Your task to perform on an android device: turn pop-ups off in chrome Image 0: 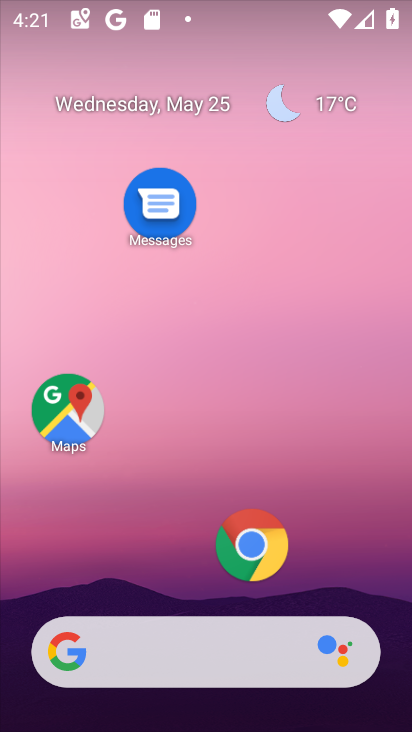
Step 0: click (256, 547)
Your task to perform on an android device: turn pop-ups off in chrome Image 1: 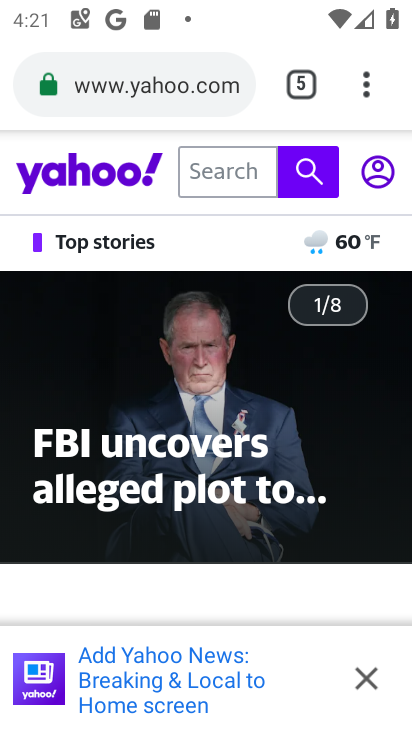
Step 1: click (371, 86)
Your task to perform on an android device: turn pop-ups off in chrome Image 2: 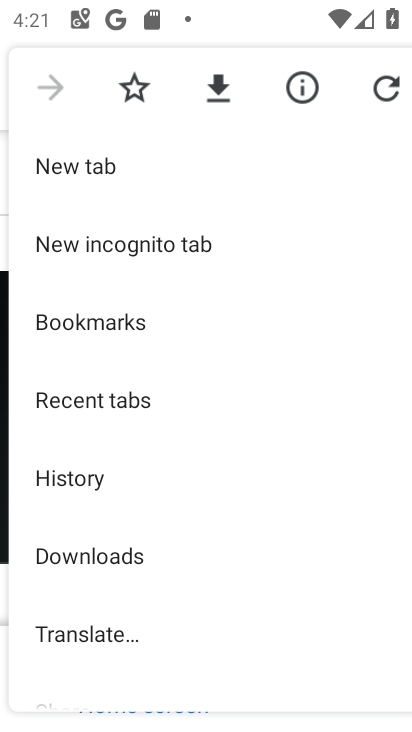
Step 2: drag from (151, 580) to (184, 211)
Your task to perform on an android device: turn pop-ups off in chrome Image 3: 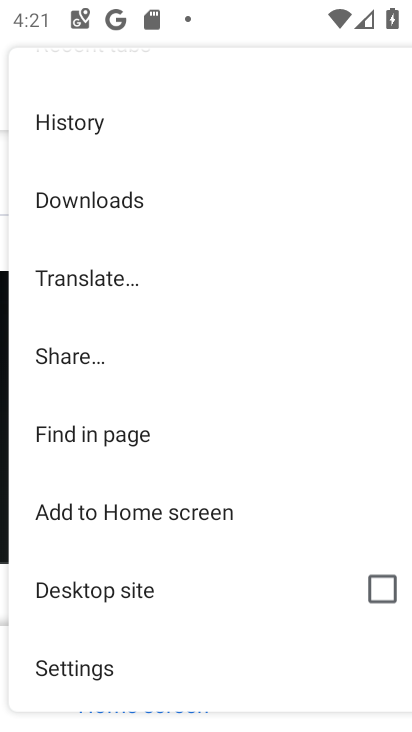
Step 3: click (89, 675)
Your task to perform on an android device: turn pop-ups off in chrome Image 4: 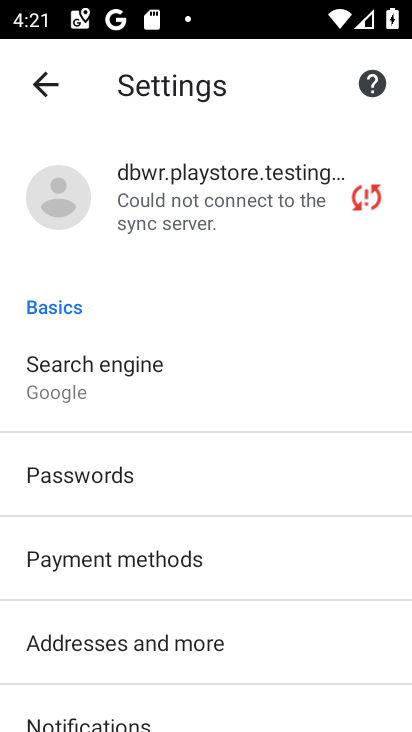
Step 4: drag from (247, 649) to (240, 123)
Your task to perform on an android device: turn pop-ups off in chrome Image 5: 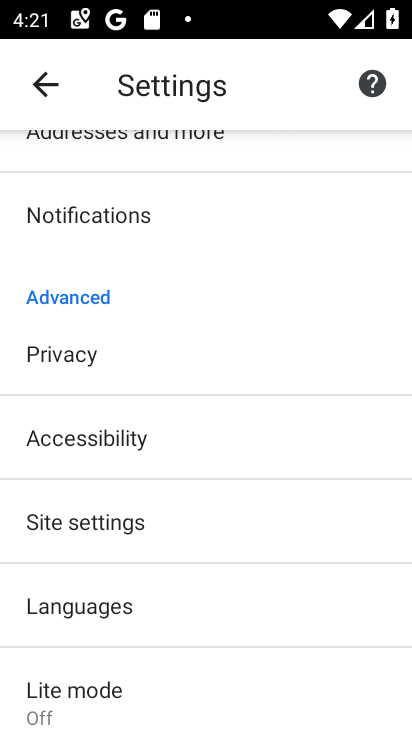
Step 5: drag from (203, 578) to (249, 95)
Your task to perform on an android device: turn pop-ups off in chrome Image 6: 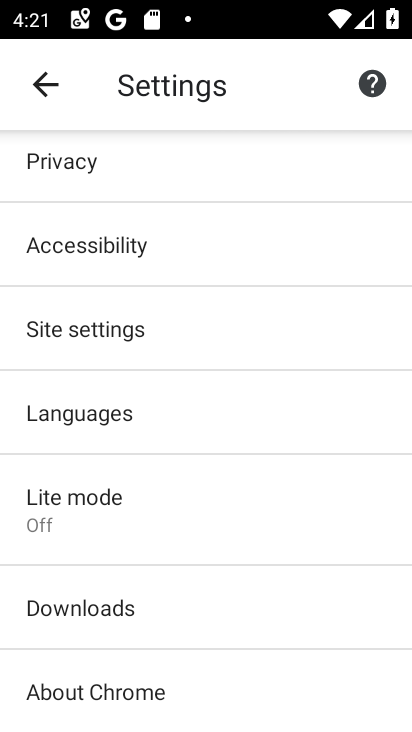
Step 6: click (137, 332)
Your task to perform on an android device: turn pop-ups off in chrome Image 7: 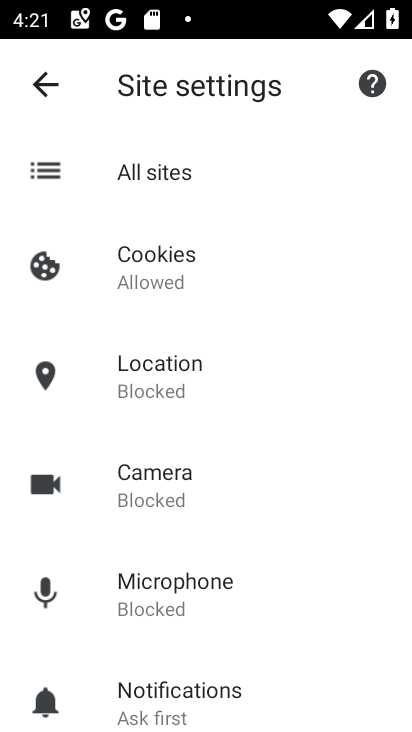
Step 7: drag from (215, 640) to (286, 157)
Your task to perform on an android device: turn pop-ups off in chrome Image 8: 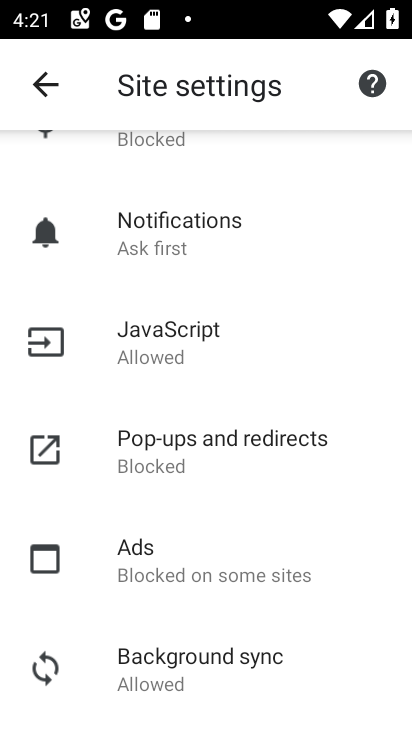
Step 8: click (256, 444)
Your task to perform on an android device: turn pop-ups off in chrome Image 9: 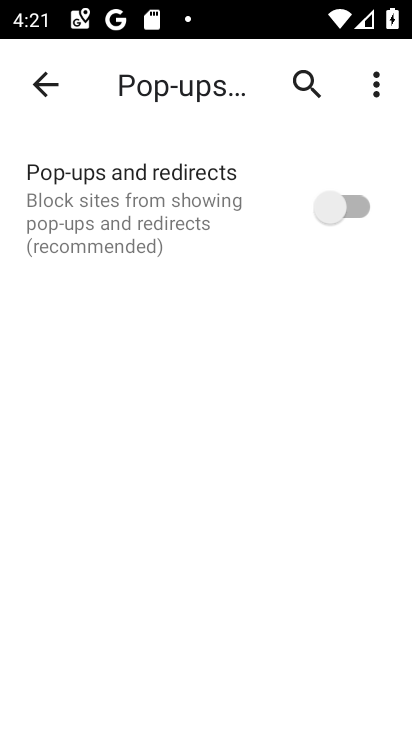
Step 9: task complete